Your task to perform on an android device: What's the weather going to be tomorrow? Image 0: 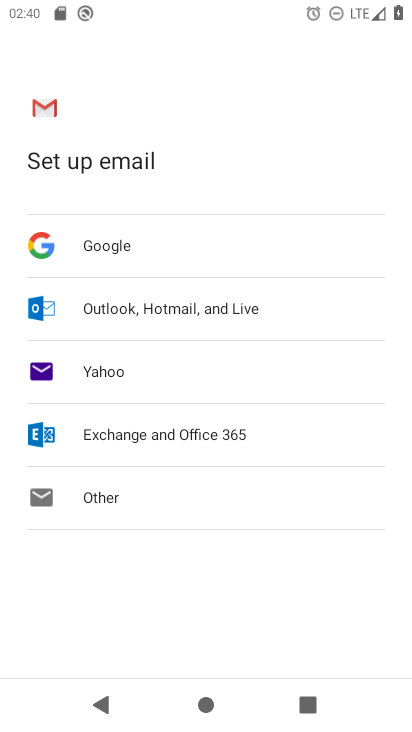
Step 0: press home button
Your task to perform on an android device: What's the weather going to be tomorrow? Image 1: 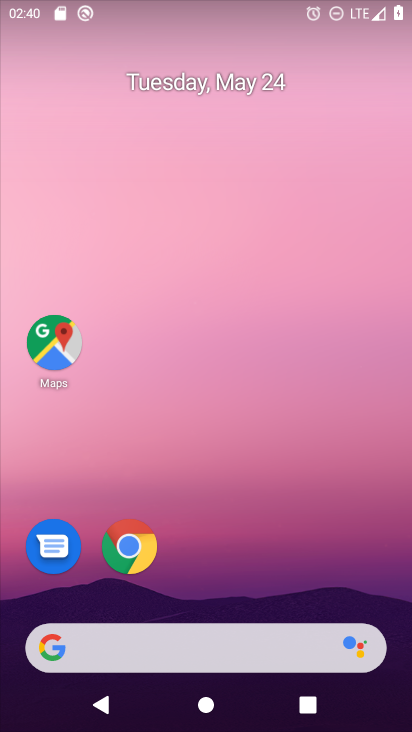
Step 1: drag from (88, 281) to (389, 287)
Your task to perform on an android device: What's the weather going to be tomorrow? Image 2: 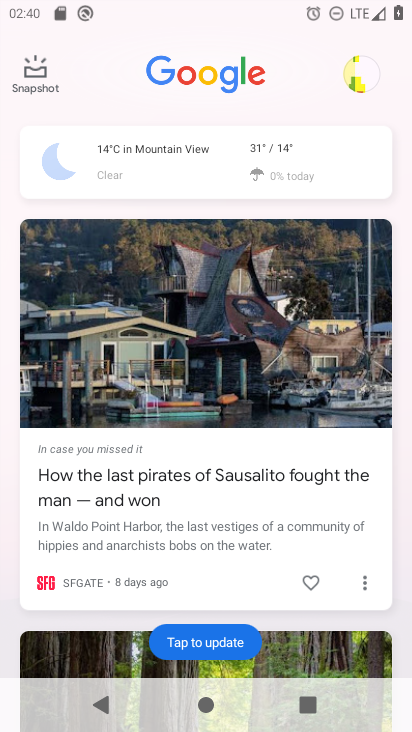
Step 2: click (173, 164)
Your task to perform on an android device: What's the weather going to be tomorrow? Image 3: 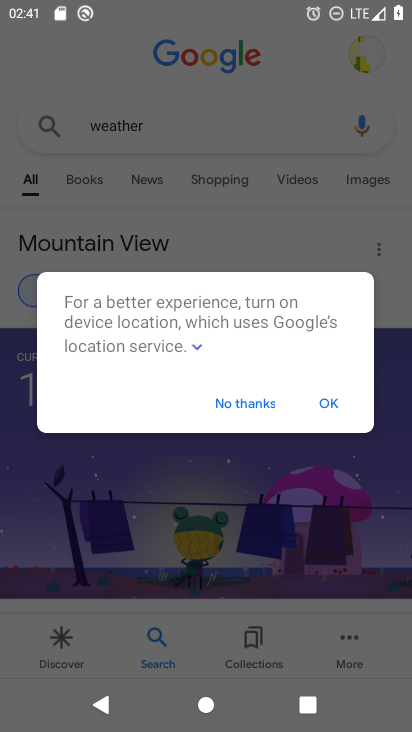
Step 3: click (248, 405)
Your task to perform on an android device: What's the weather going to be tomorrow? Image 4: 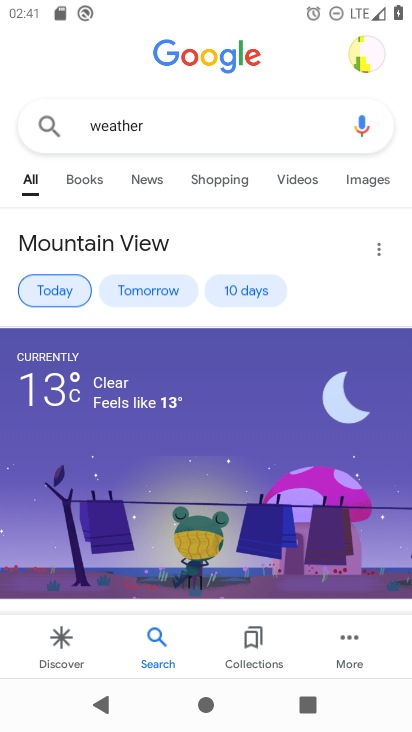
Step 4: click (149, 286)
Your task to perform on an android device: What's the weather going to be tomorrow? Image 5: 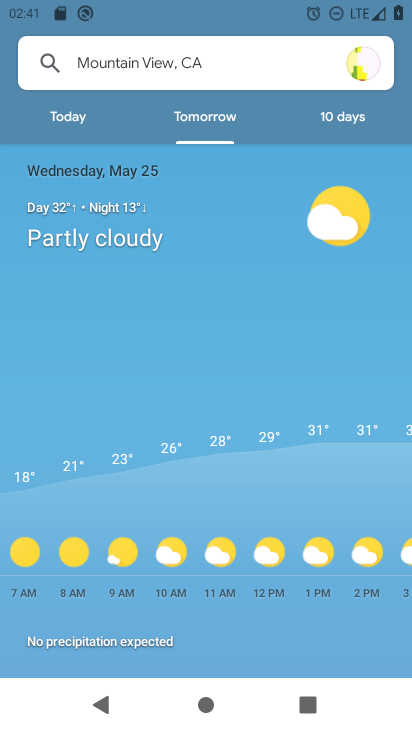
Step 5: task complete